Your task to perform on an android device: empty trash in the gmail app Image 0: 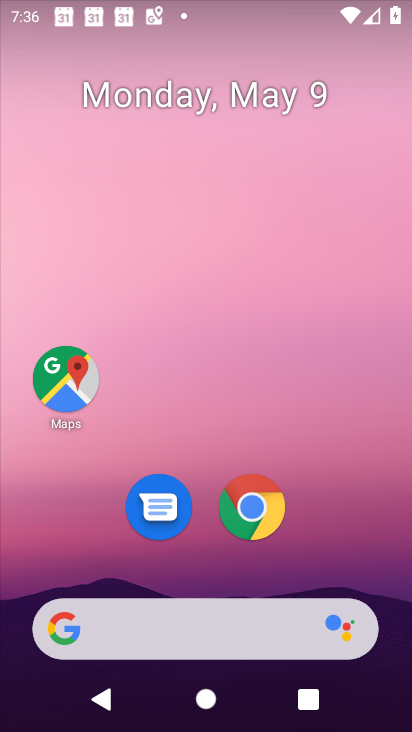
Step 0: drag from (242, 676) to (369, 130)
Your task to perform on an android device: empty trash in the gmail app Image 1: 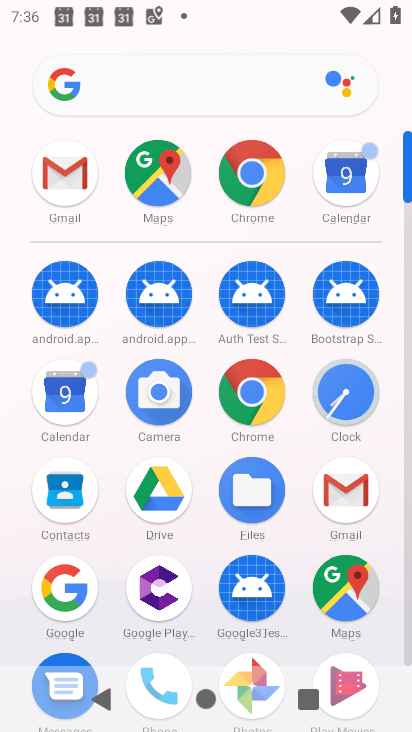
Step 1: click (64, 194)
Your task to perform on an android device: empty trash in the gmail app Image 2: 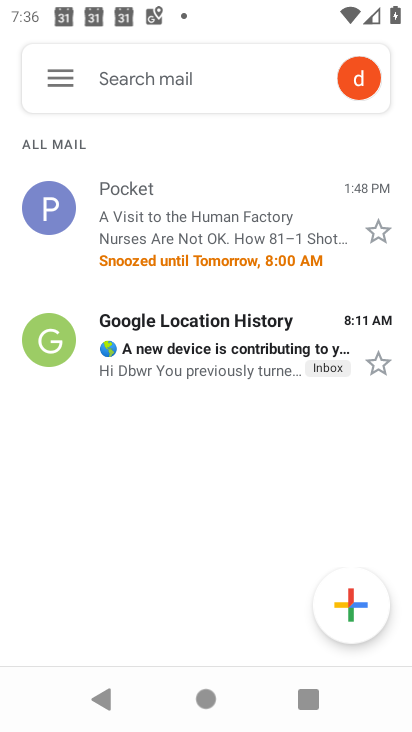
Step 2: click (56, 69)
Your task to perform on an android device: empty trash in the gmail app Image 3: 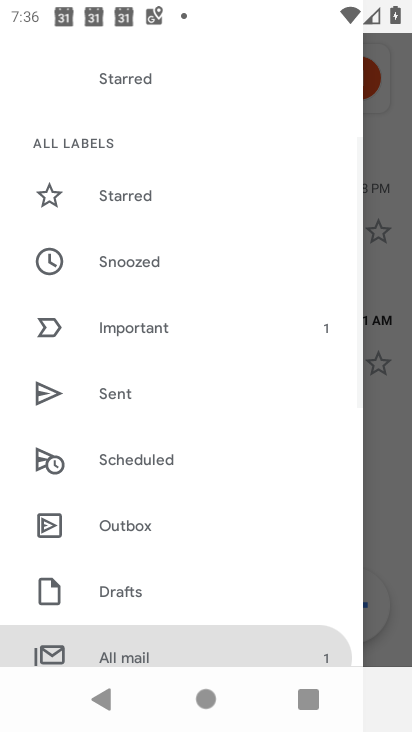
Step 3: drag from (154, 524) to (247, 300)
Your task to perform on an android device: empty trash in the gmail app Image 4: 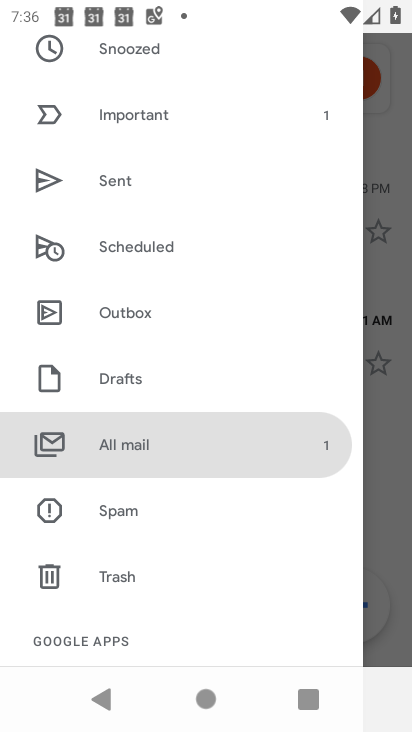
Step 4: click (133, 570)
Your task to perform on an android device: empty trash in the gmail app Image 5: 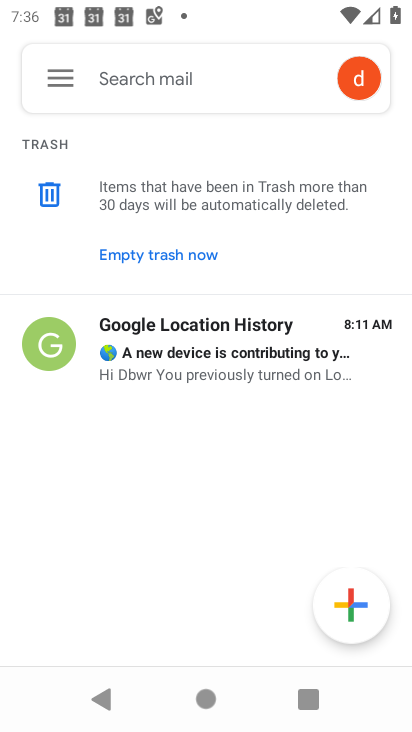
Step 5: click (141, 247)
Your task to perform on an android device: empty trash in the gmail app Image 6: 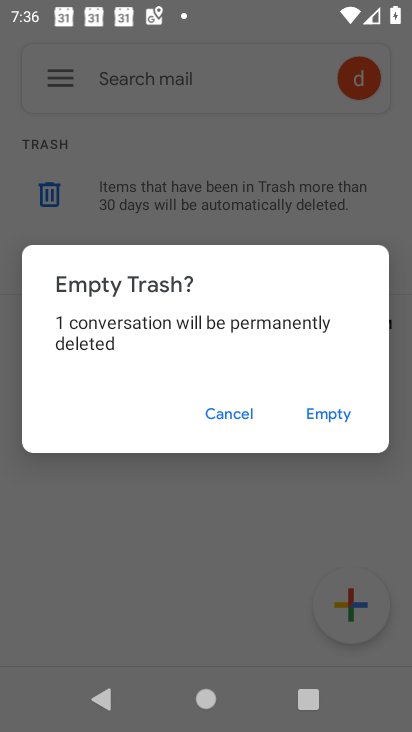
Step 6: click (324, 415)
Your task to perform on an android device: empty trash in the gmail app Image 7: 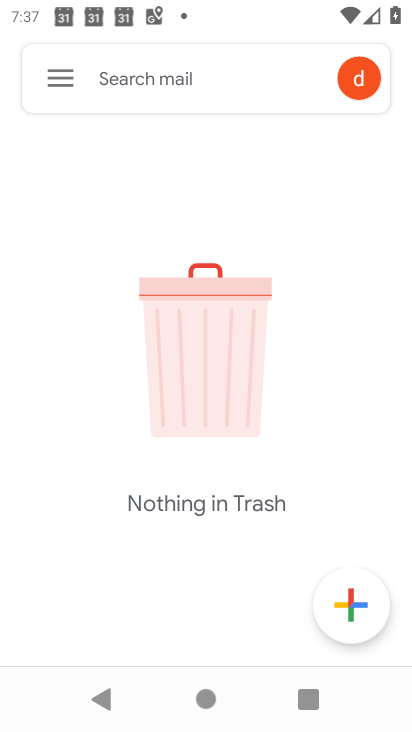
Step 7: task complete